Your task to perform on an android device: open sync settings in chrome Image 0: 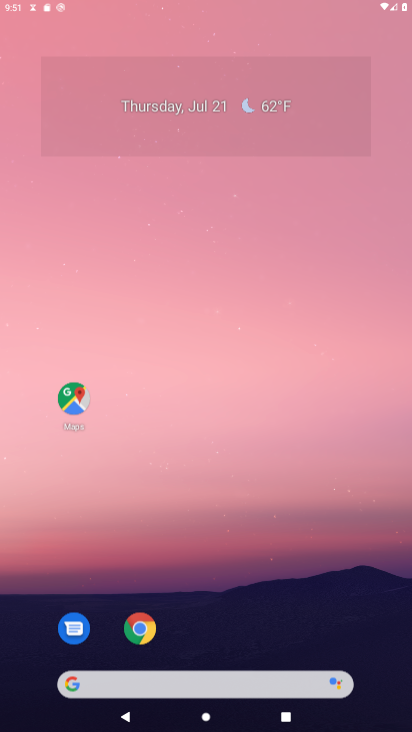
Step 0: click (90, 75)
Your task to perform on an android device: open sync settings in chrome Image 1: 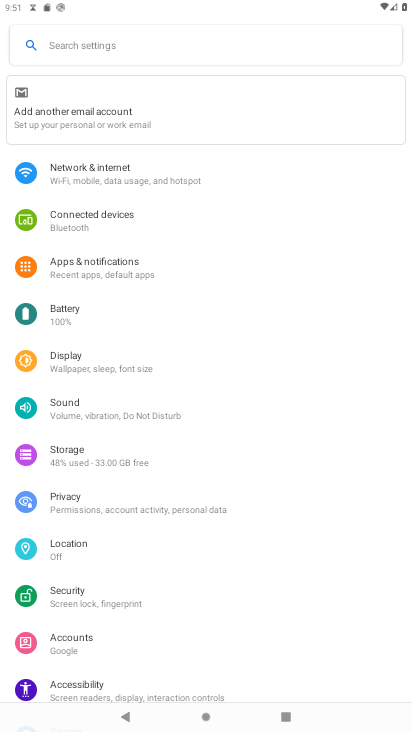
Step 1: press home button
Your task to perform on an android device: open sync settings in chrome Image 2: 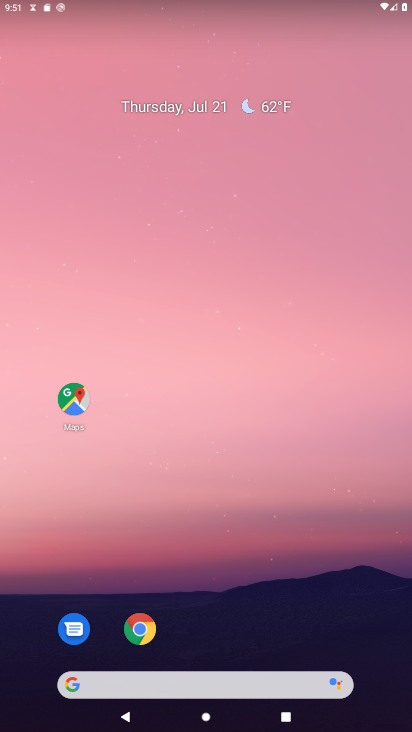
Step 2: drag from (181, 652) to (178, 251)
Your task to perform on an android device: open sync settings in chrome Image 3: 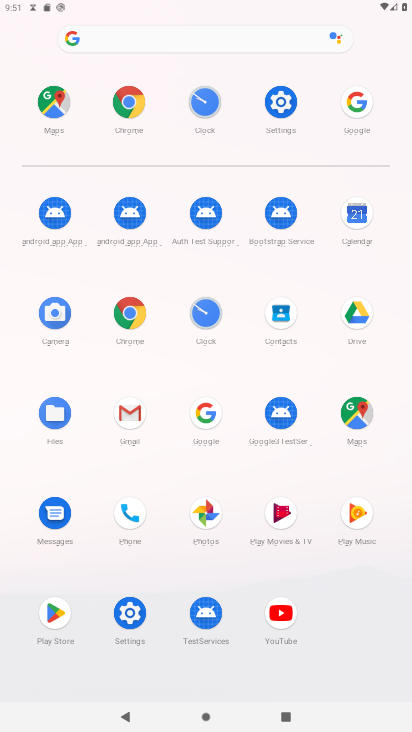
Step 3: click (130, 320)
Your task to perform on an android device: open sync settings in chrome Image 4: 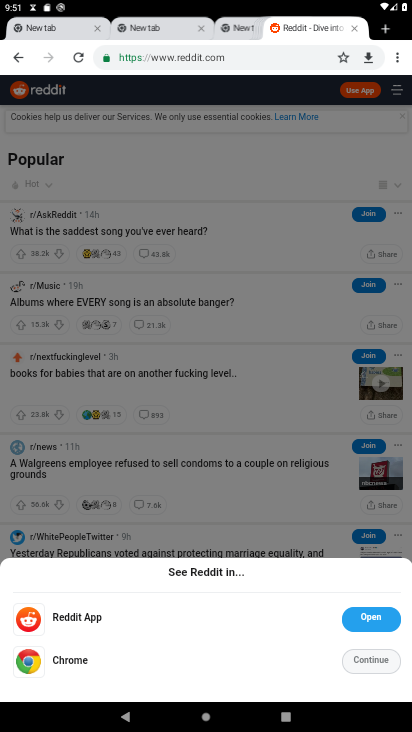
Step 4: click (402, 56)
Your task to perform on an android device: open sync settings in chrome Image 5: 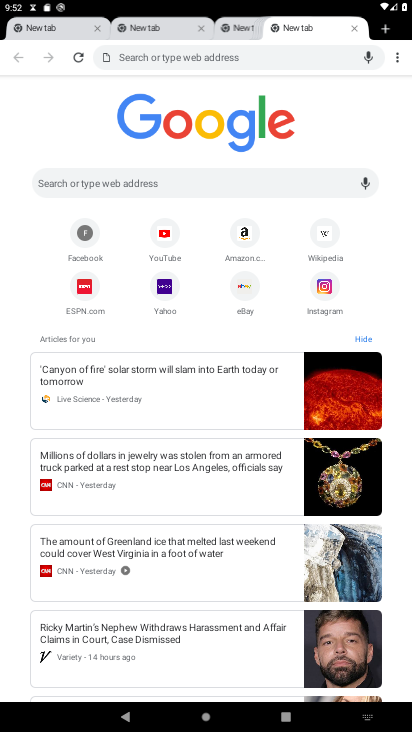
Step 5: click (400, 61)
Your task to perform on an android device: open sync settings in chrome Image 6: 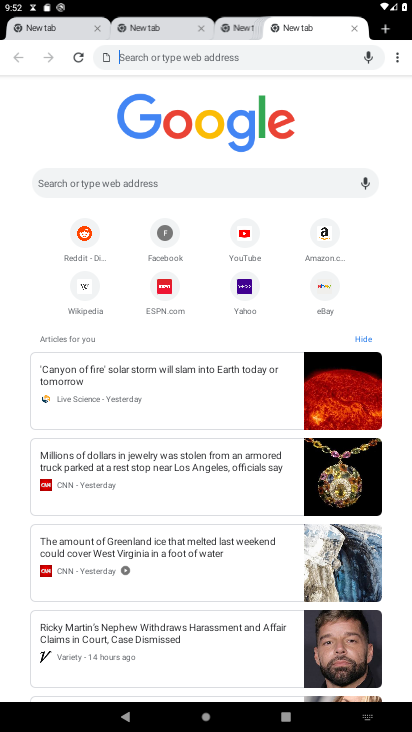
Step 6: click (407, 48)
Your task to perform on an android device: open sync settings in chrome Image 7: 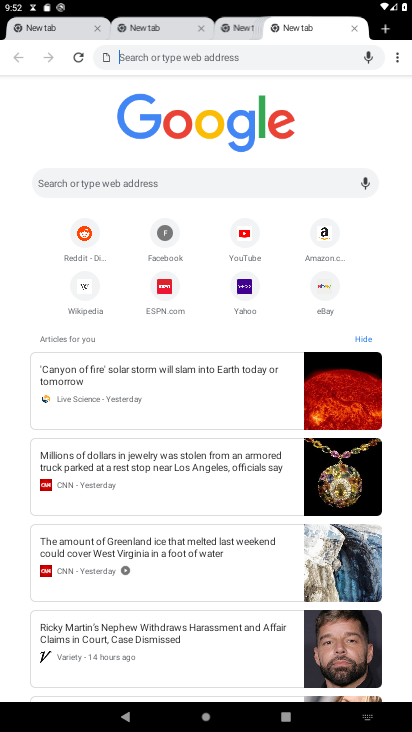
Step 7: click (396, 54)
Your task to perform on an android device: open sync settings in chrome Image 8: 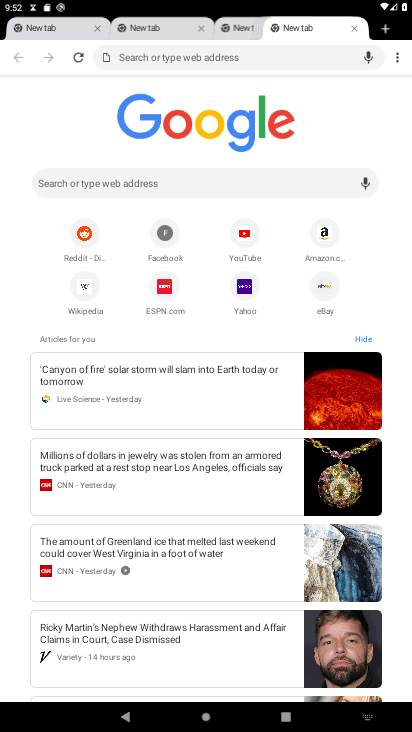
Step 8: click (396, 54)
Your task to perform on an android device: open sync settings in chrome Image 9: 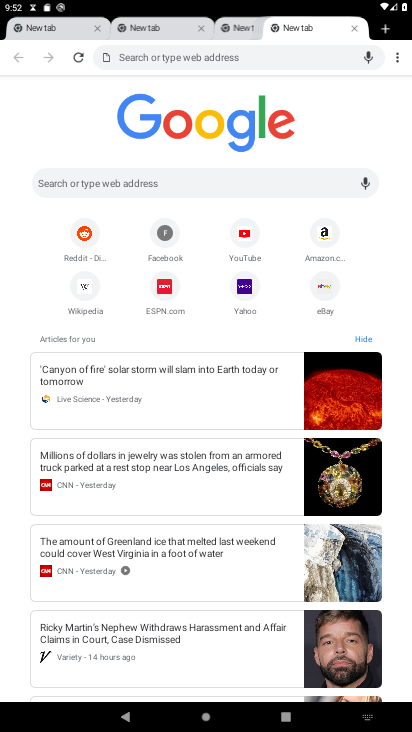
Step 9: click (410, 50)
Your task to perform on an android device: open sync settings in chrome Image 10: 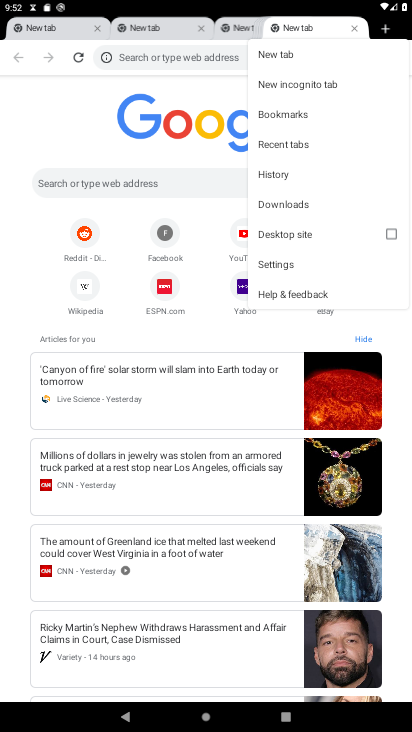
Step 10: click (304, 265)
Your task to perform on an android device: open sync settings in chrome Image 11: 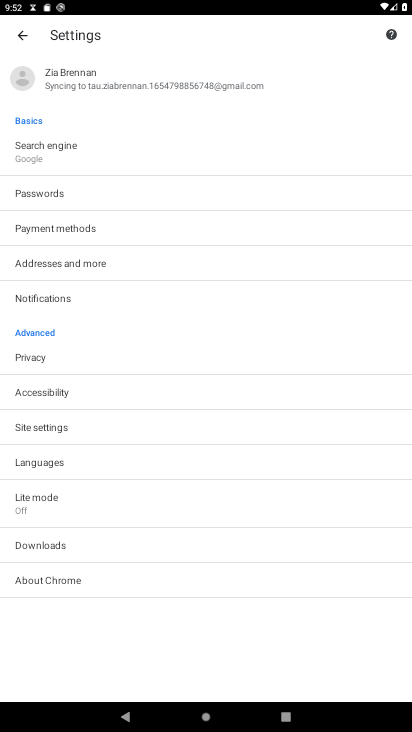
Step 11: click (80, 84)
Your task to perform on an android device: open sync settings in chrome Image 12: 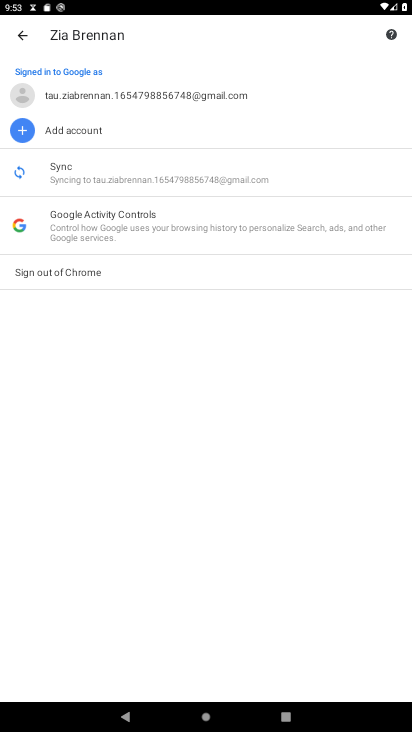
Step 12: click (120, 171)
Your task to perform on an android device: open sync settings in chrome Image 13: 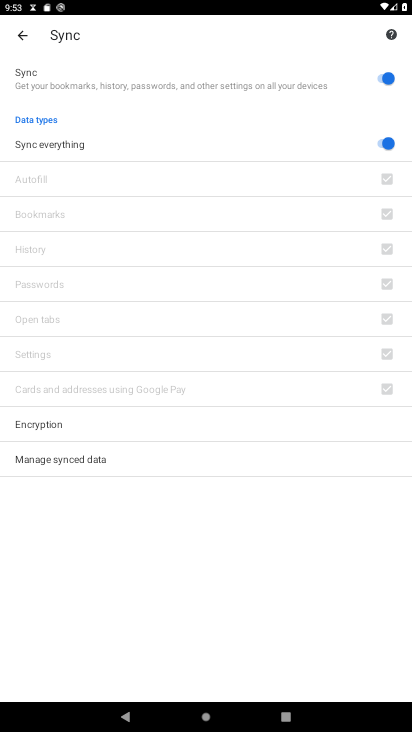
Step 13: task complete